Your task to perform on an android device: turn on the 12-hour format for clock Image 0: 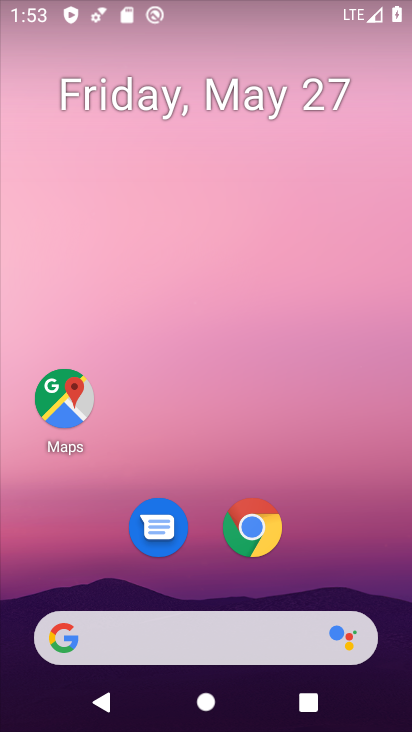
Step 0: drag from (147, 562) to (214, 32)
Your task to perform on an android device: turn on the 12-hour format for clock Image 1: 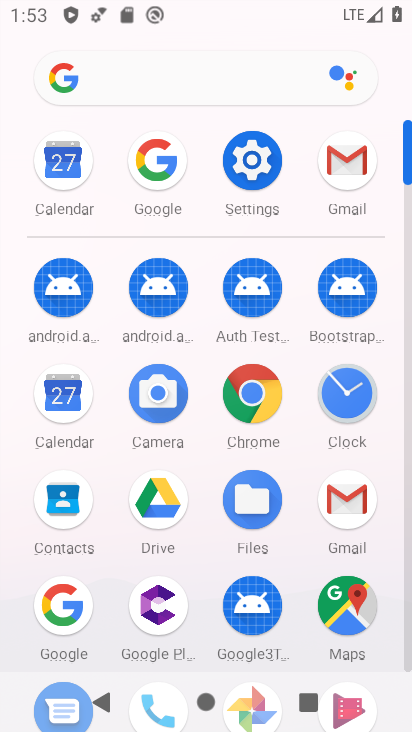
Step 1: click (344, 405)
Your task to perform on an android device: turn on the 12-hour format for clock Image 2: 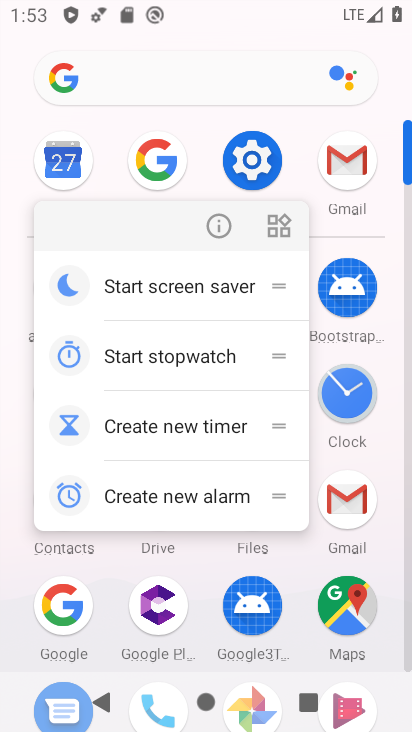
Step 2: click (347, 390)
Your task to perform on an android device: turn on the 12-hour format for clock Image 3: 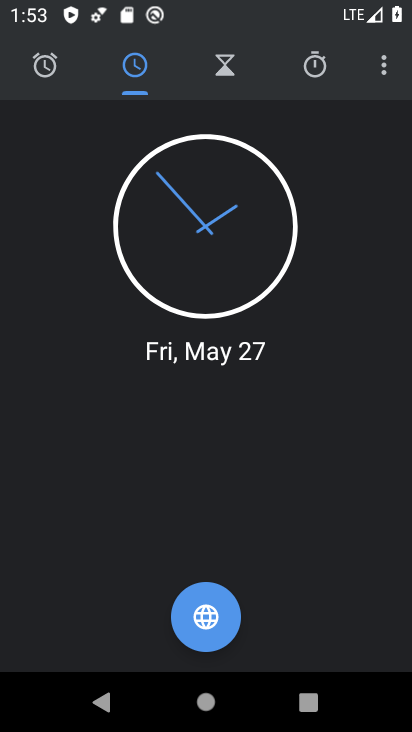
Step 3: click (391, 68)
Your task to perform on an android device: turn on the 12-hour format for clock Image 4: 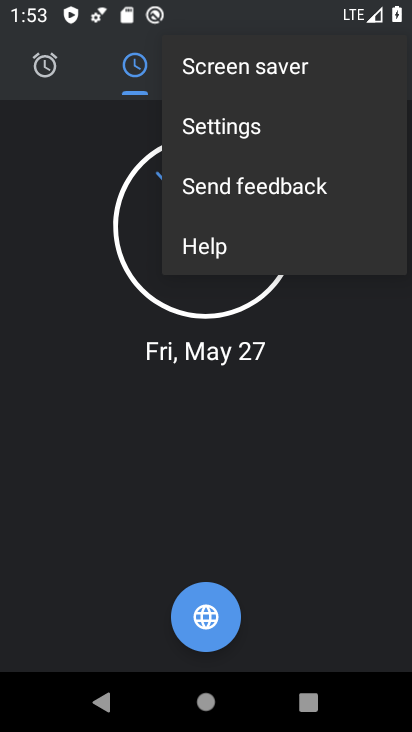
Step 4: click (308, 129)
Your task to perform on an android device: turn on the 12-hour format for clock Image 5: 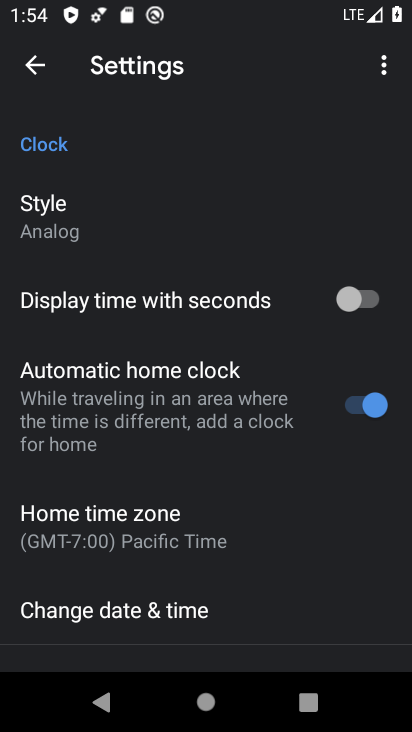
Step 5: drag from (260, 544) to (387, 38)
Your task to perform on an android device: turn on the 12-hour format for clock Image 6: 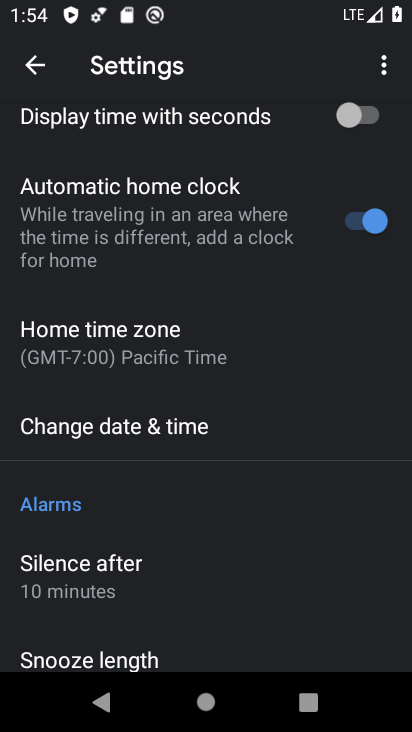
Step 6: click (171, 429)
Your task to perform on an android device: turn on the 12-hour format for clock Image 7: 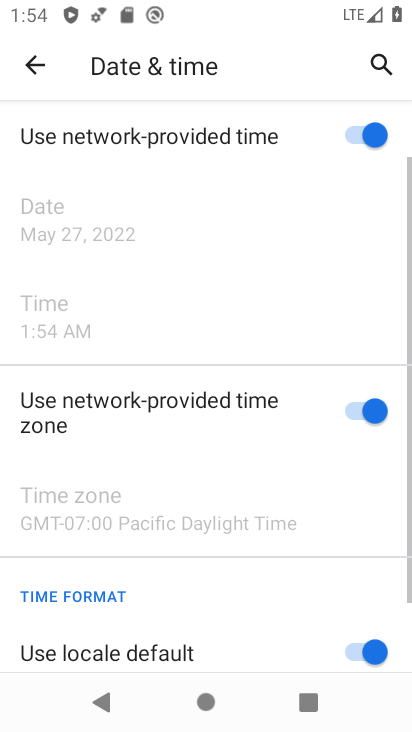
Step 7: task complete